Your task to perform on an android device: Clear all items from cart on target. Search for razer kraken on target, select the first entry, add it to the cart, then select checkout. Image 0: 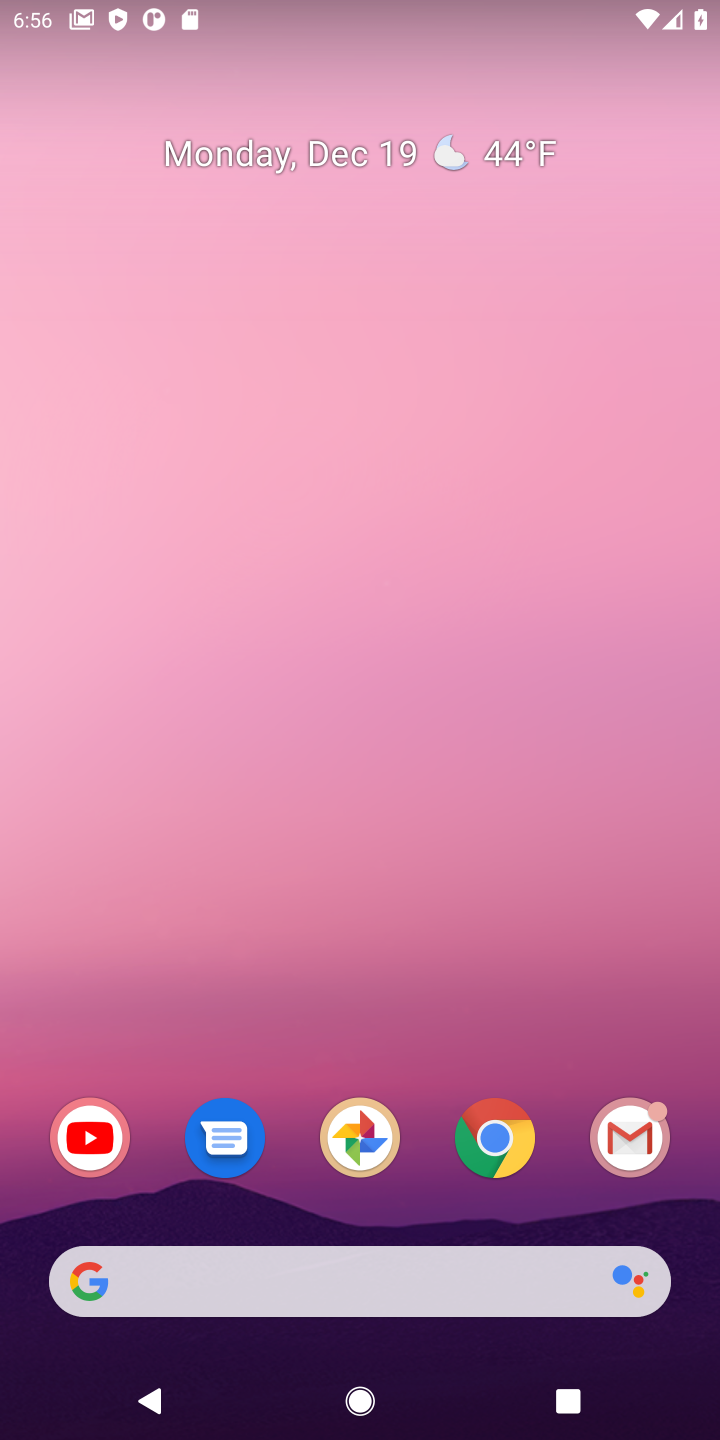
Step 0: click (494, 1140)
Your task to perform on an android device: Clear all items from cart on target. Search for razer kraken on target, select the first entry, add it to the cart, then select checkout. Image 1: 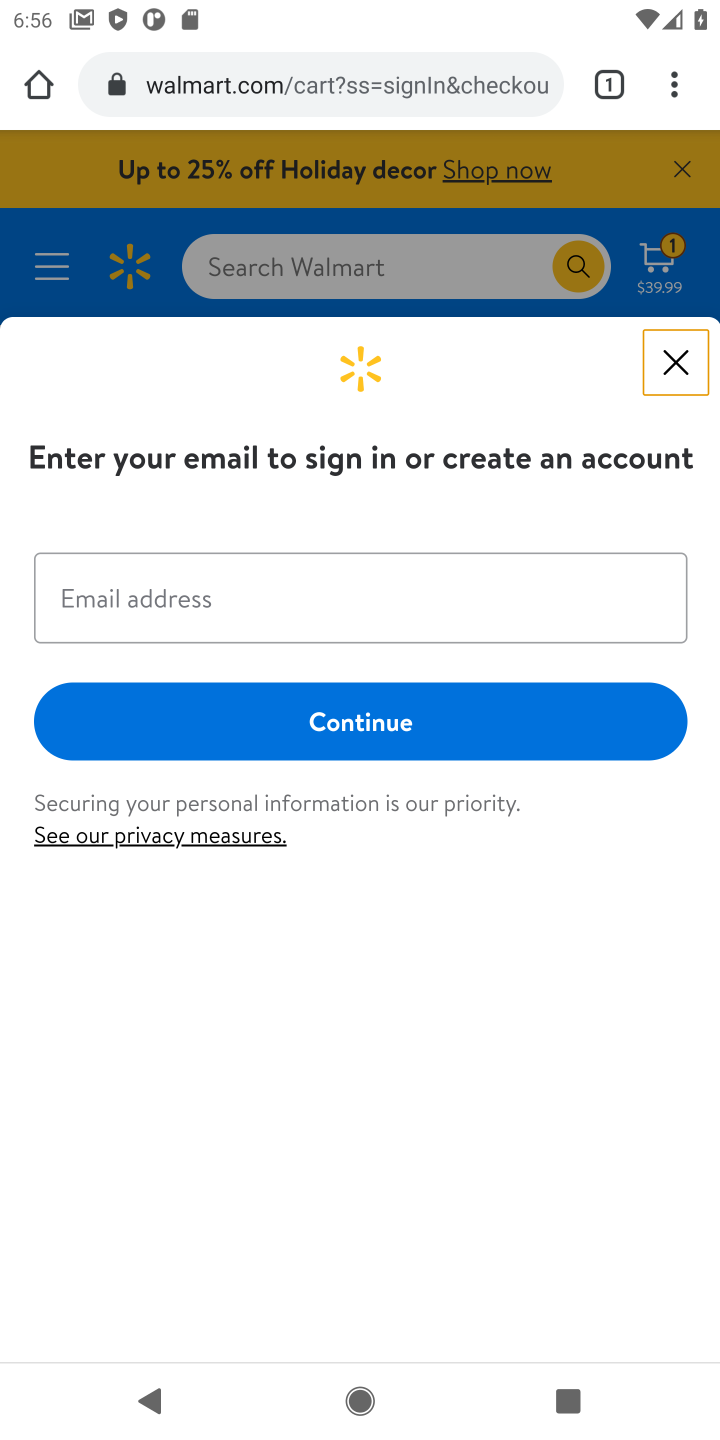
Step 1: click (338, 84)
Your task to perform on an android device: Clear all items from cart on target. Search for razer kraken on target, select the first entry, add it to the cart, then select checkout. Image 2: 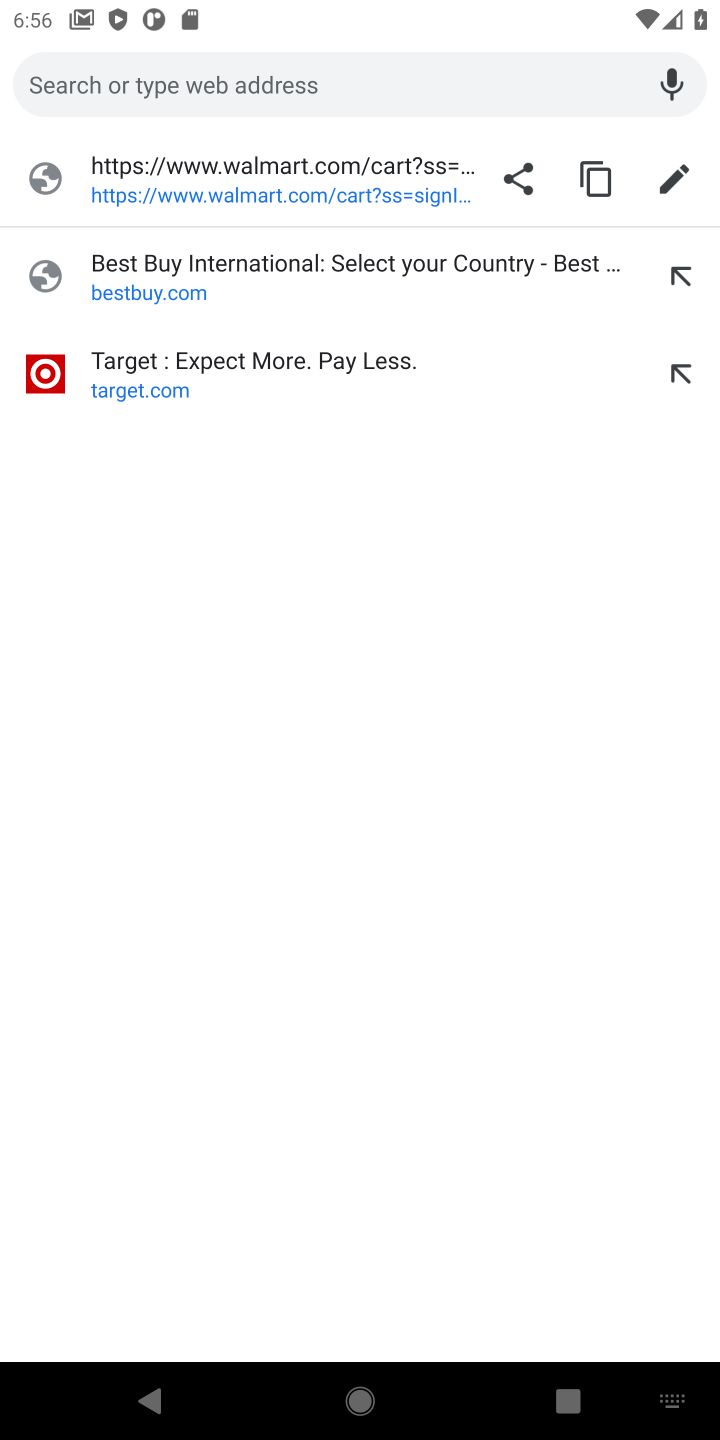
Step 2: click (248, 370)
Your task to perform on an android device: Clear all items from cart on target. Search for razer kraken on target, select the first entry, add it to the cart, then select checkout. Image 3: 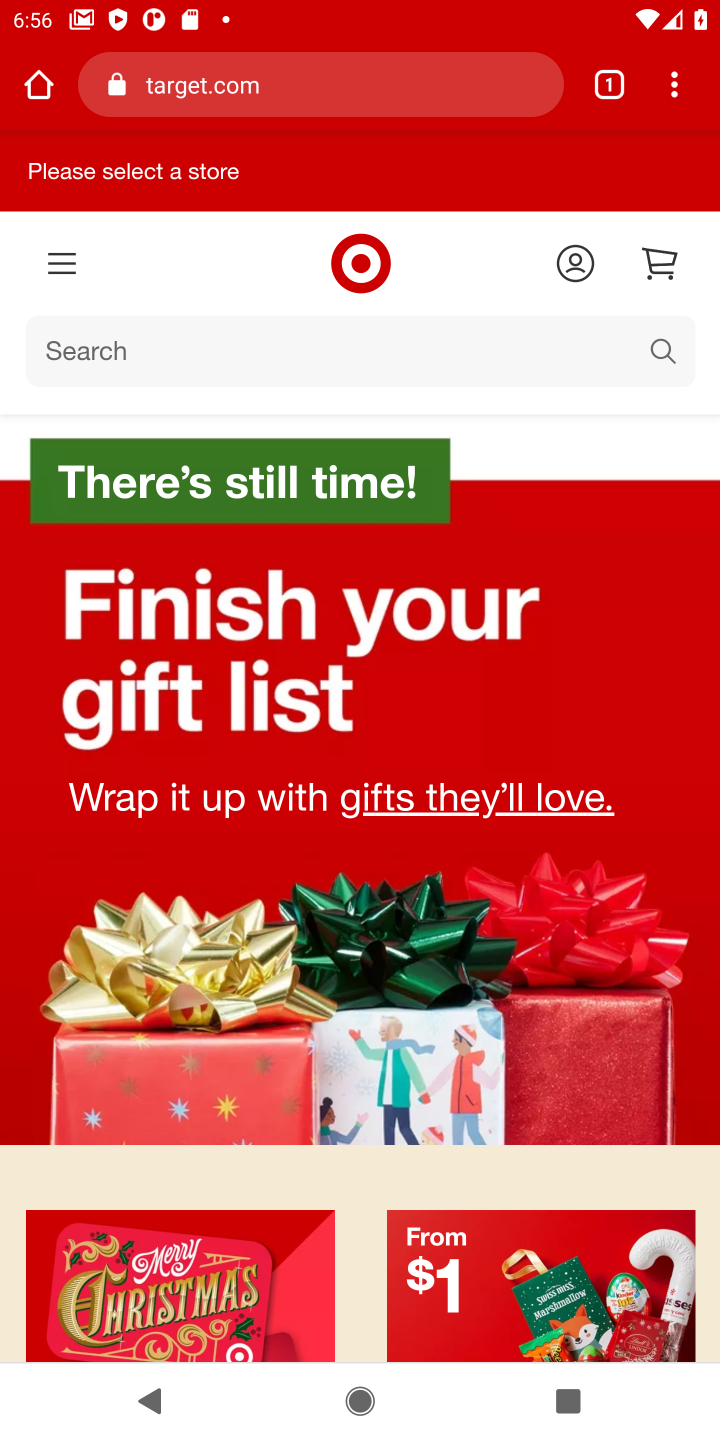
Step 3: click (522, 353)
Your task to perform on an android device: Clear all items from cart on target. Search for razer kraken on target, select the first entry, add it to the cart, then select checkout. Image 4: 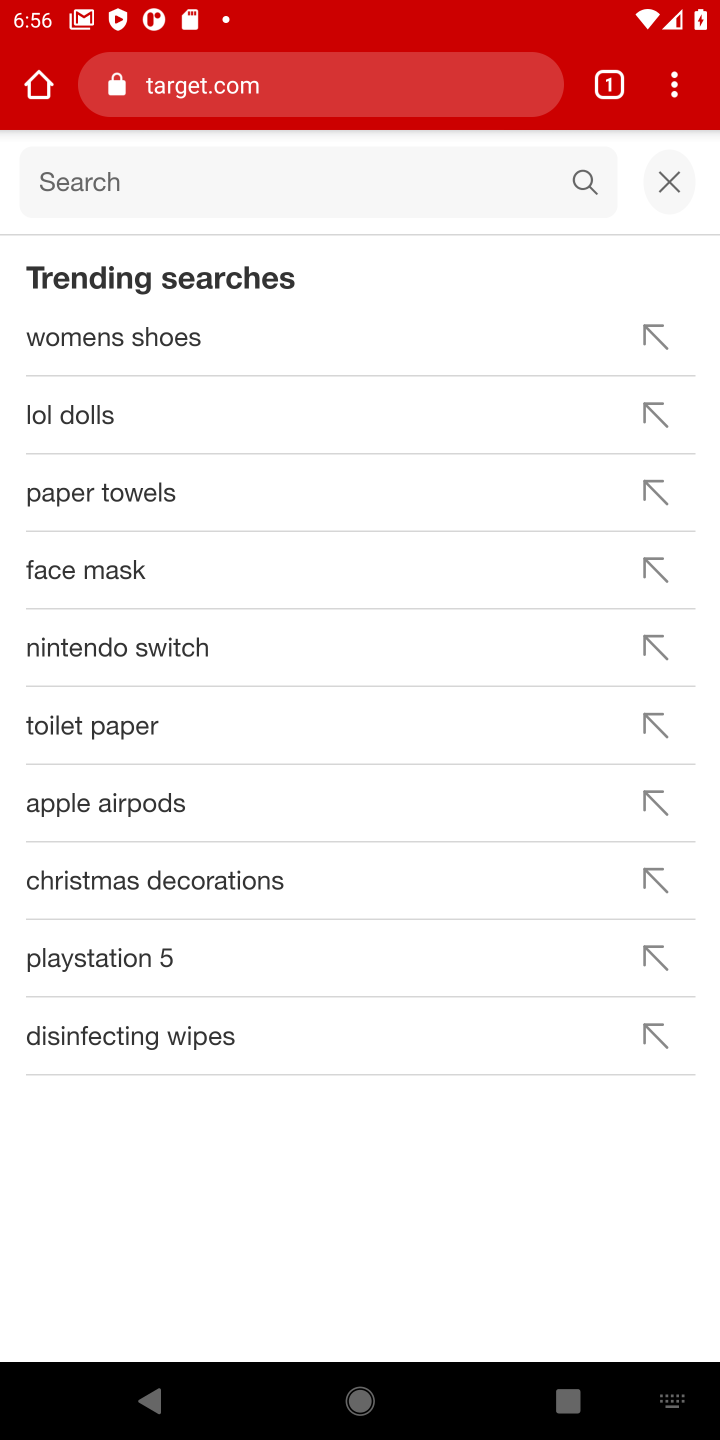
Step 4: click (303, 171)
Your task to perform on an android device: Clear all items from cart on target. Search for razer kraken on target, select the first entry, add it to the cart, then select checkout. Image 5: 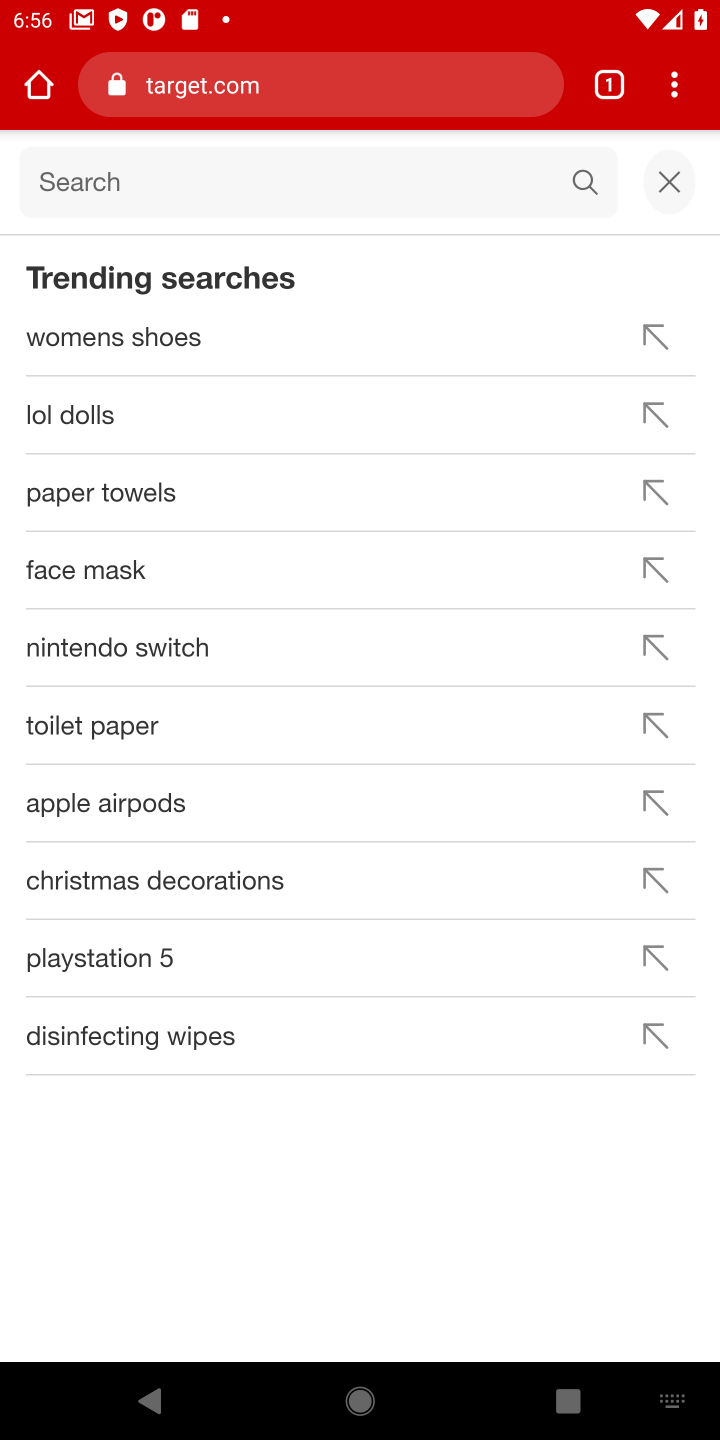
Step 5: type "razer kraken"
Your task to perform on an android device: Clear all items from cart on target. Search for razer kraken on target, select the first entry, add it to the cart, then select checkout. Image 6: 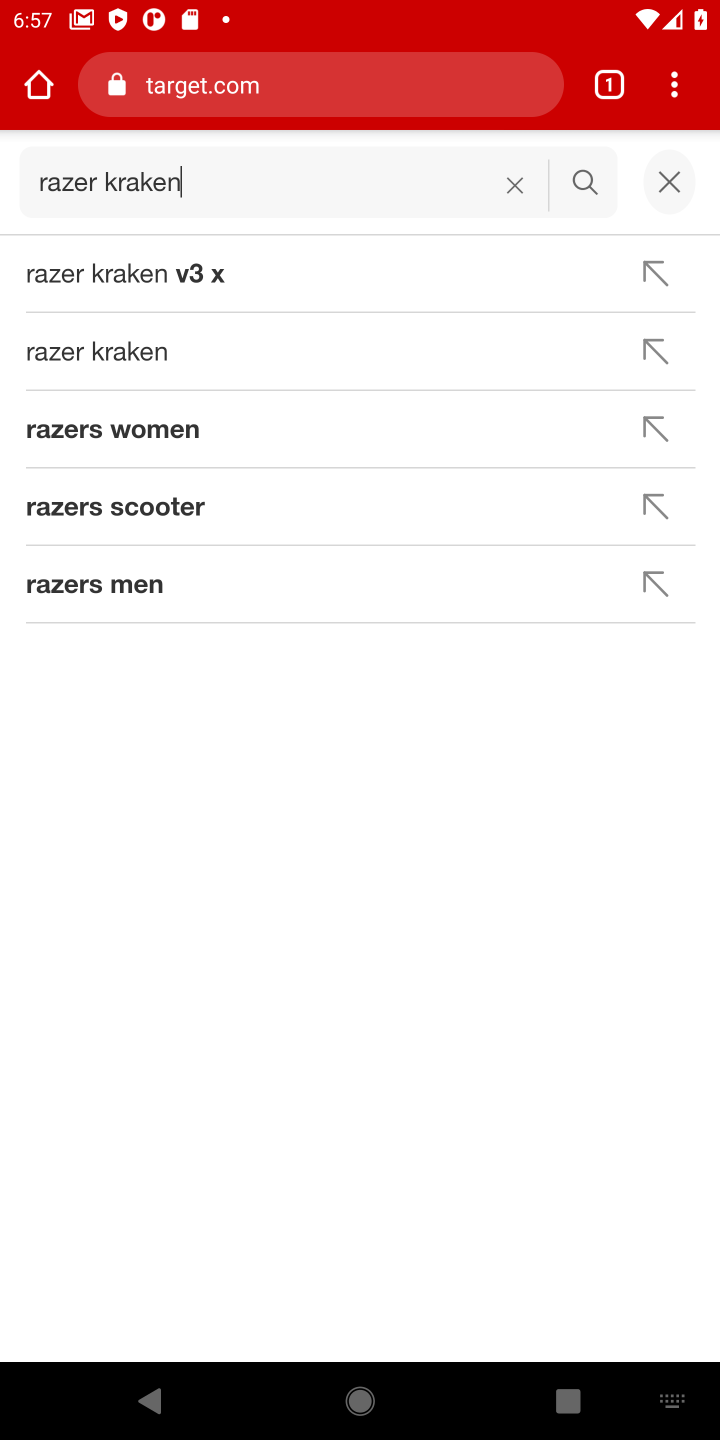
Step 6: click (213, 291)
Your task to perform on an android device: Clear all items from cart on target. Search for razer kraken on target, select the first entry, add it to the cart, then select checkout. Image 7: 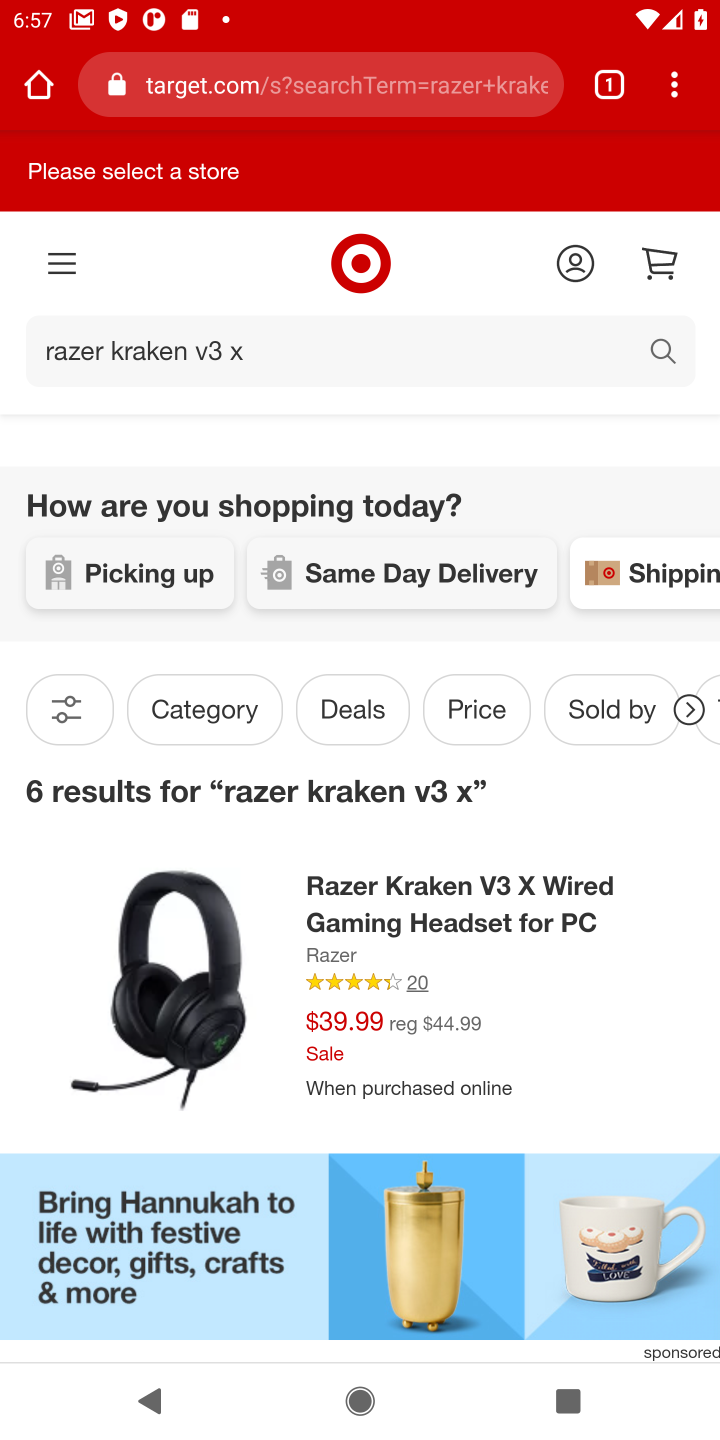
Step 7: click (580, 911)
Your task to perform on an android device: Clear all items from cart on target. Search for razer kraken on target, select the first entry, add it to the cart, then select checkout. Image 8: 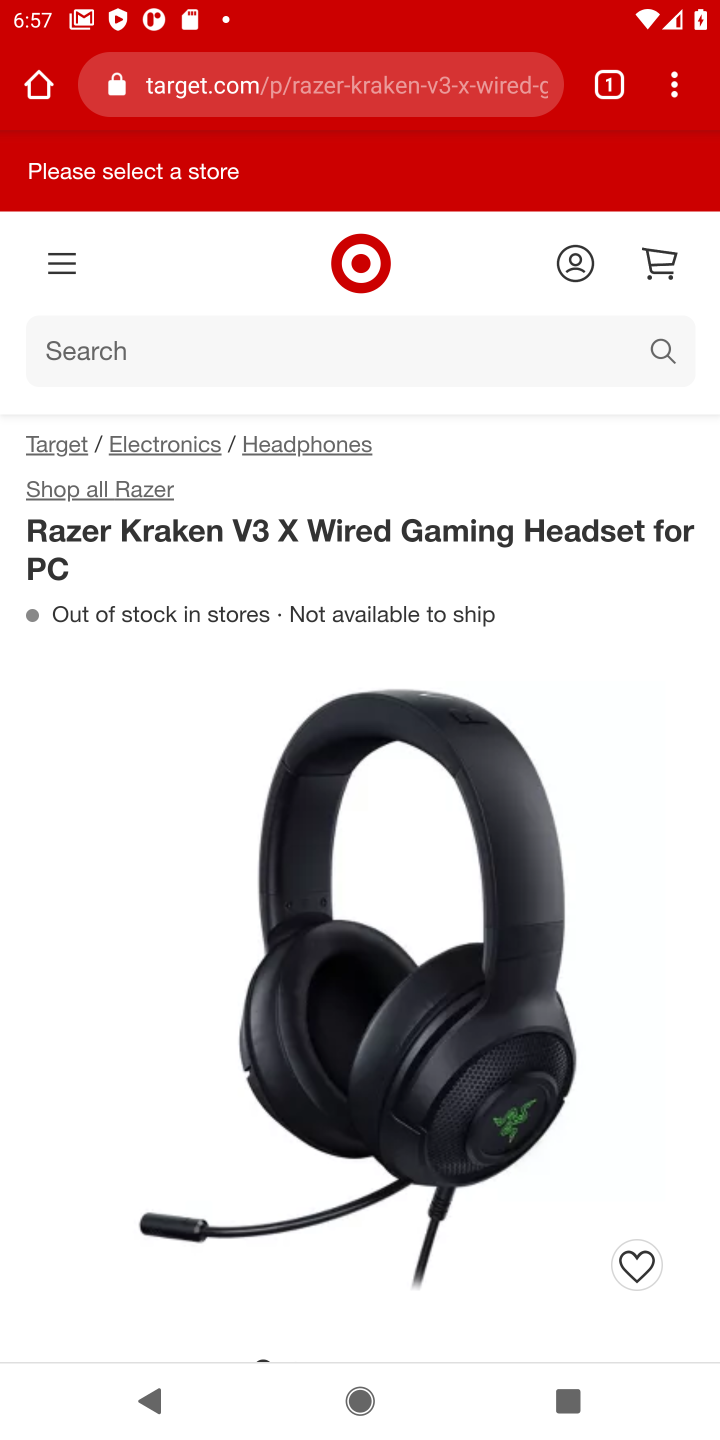
Step 8: drag from (477, 1134) to (441, 595)
Your task to perform on an android device: Clear all items from cart on target. Search for razer kraken on target, select the first entry, add it to the cart, then select checkout. Image 9: 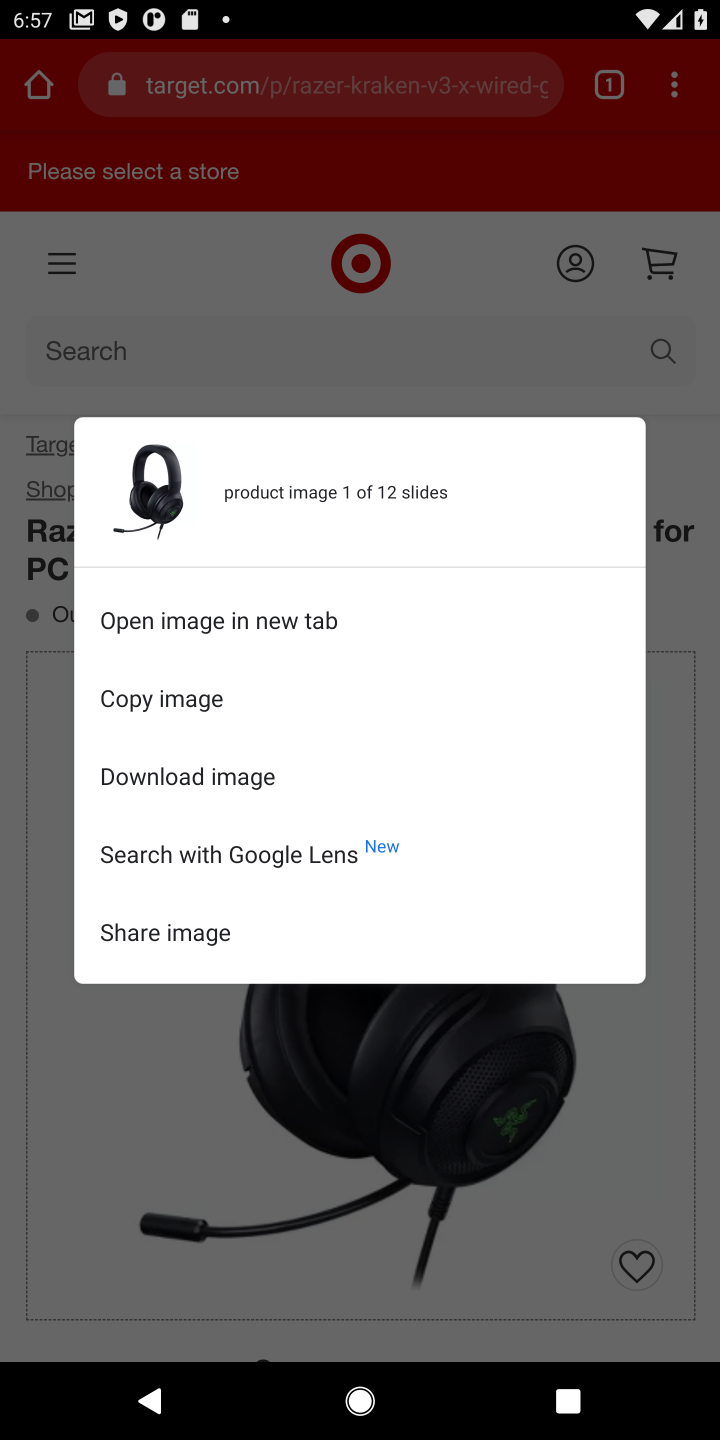
Step 9: click (593, 1097)
Your task to perform on an android device: Clear all items from cart on target. Search for razer kraken on target, select the first entry, add it to the cart, then select checkout. Image 10: 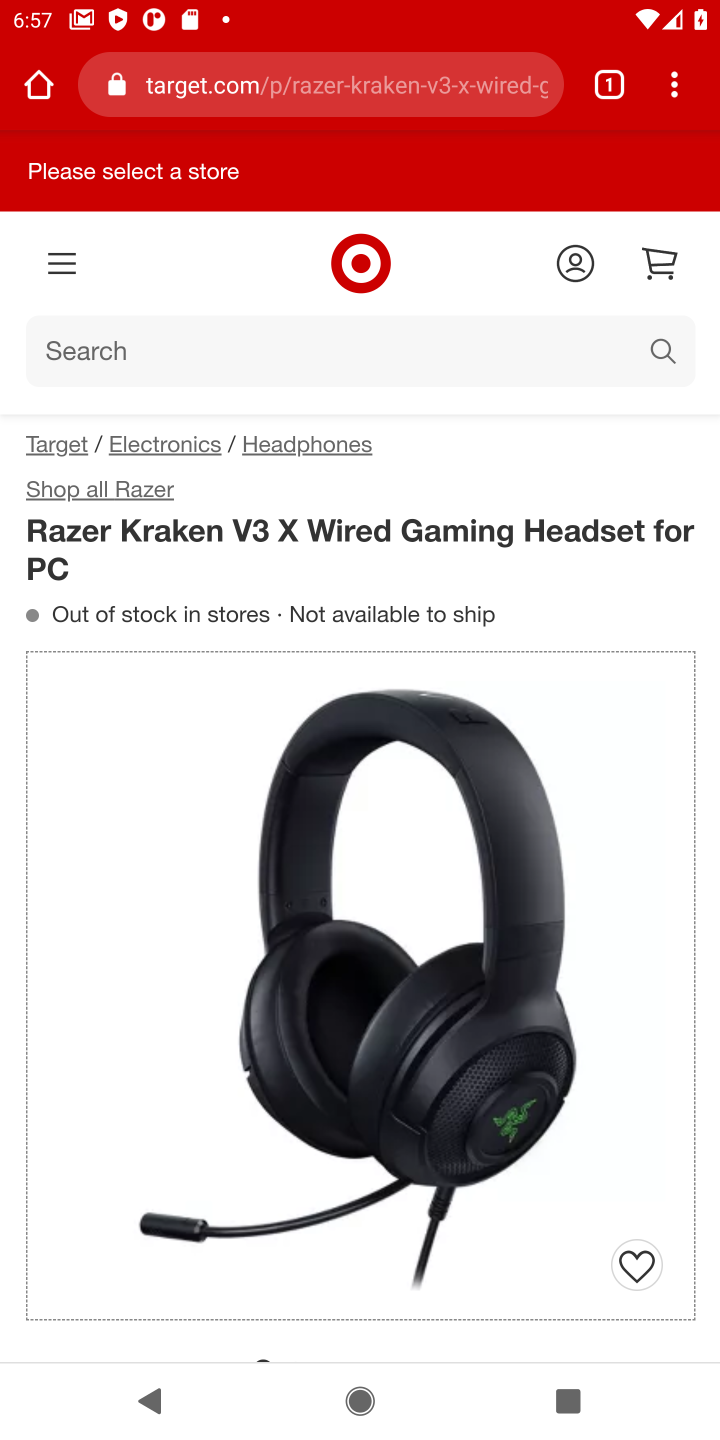
Step 10: drag from (553, 611) to (447, 84)
Your task to perform on an android device: Clear all items from cart on target. Search for razer kraken on target, select the first entry, add it to the cart, then select checkout. Image 11: 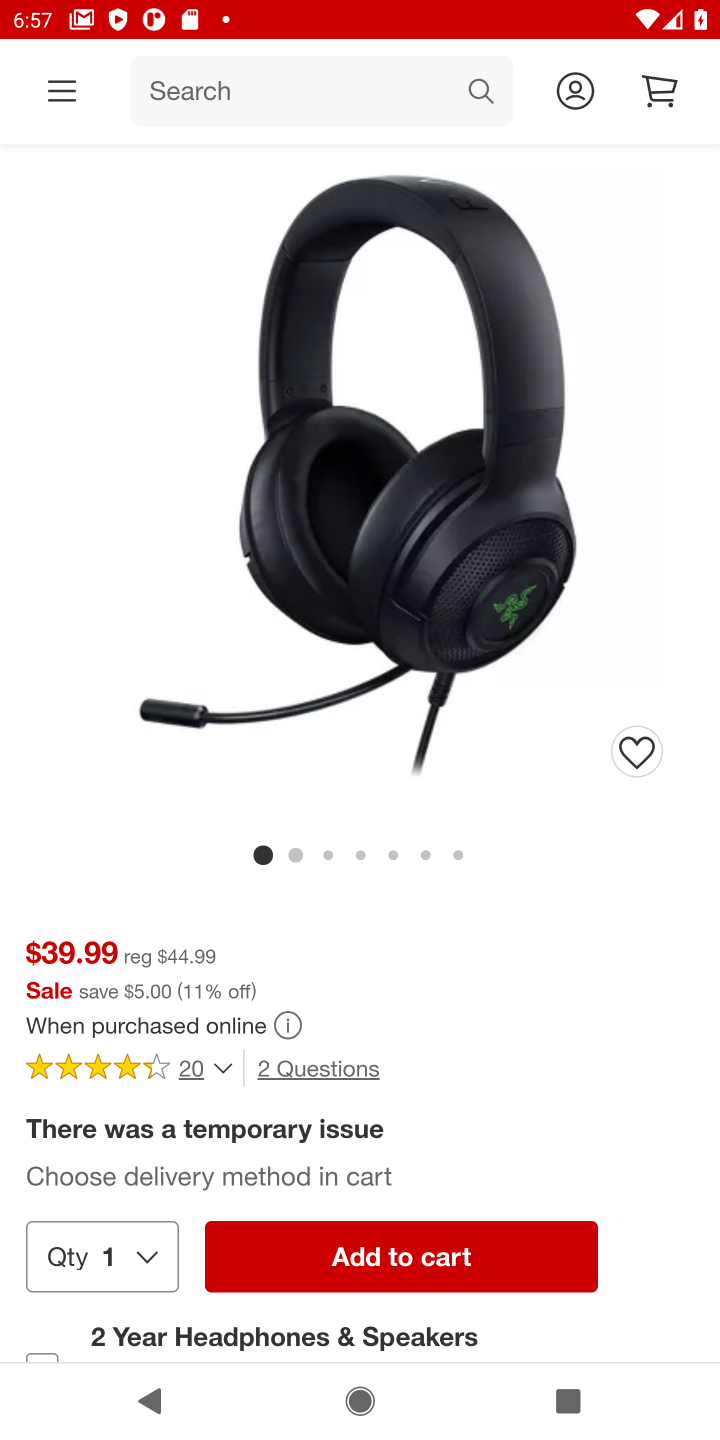
Step 11: click (445, 1267)
Your task to perform on an android device: Clear all items from cart on target. Search for razer kraken on target, select the first entry, add it to the cart, then select checkout. Image 12: 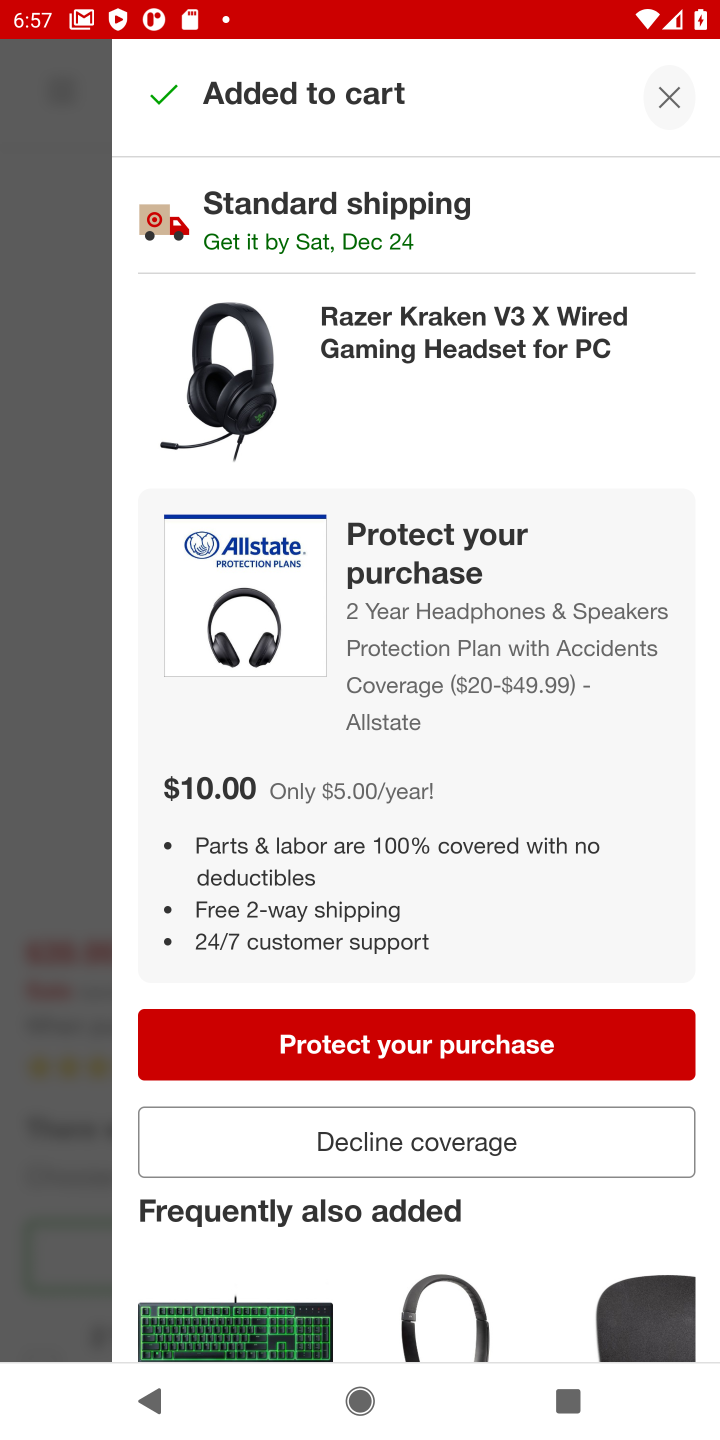
Step 12: click (441, 1142)
Your task to perform on an android device: Clear all items from cart on target. Search for razer kraken on target, select the first entry, add it to the cart, then select checkout. Image 13: 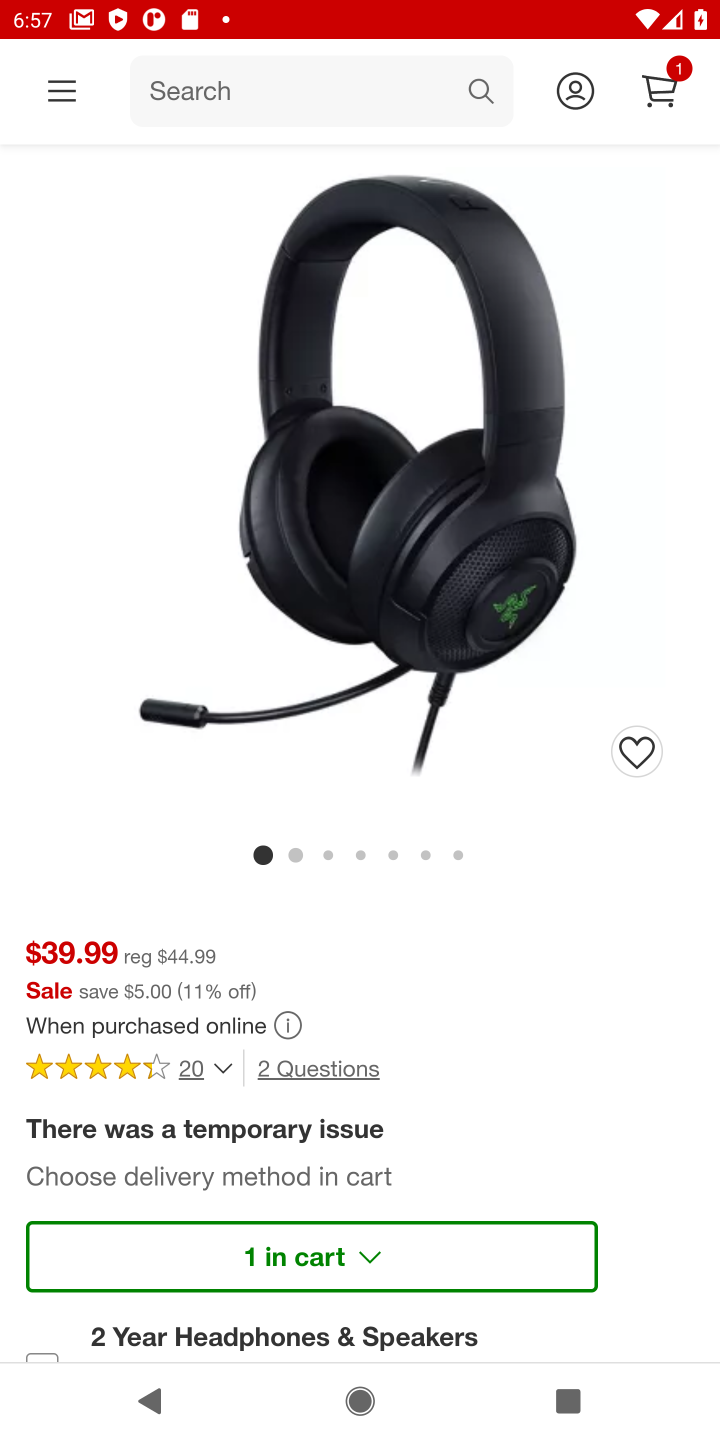
Step 13: click (654, 99)
Your task to perform on an android device: Clear all items from cart on target. Search for razer kraken on target, select the first entry, add it to the cart, then select checkout. Image 14: 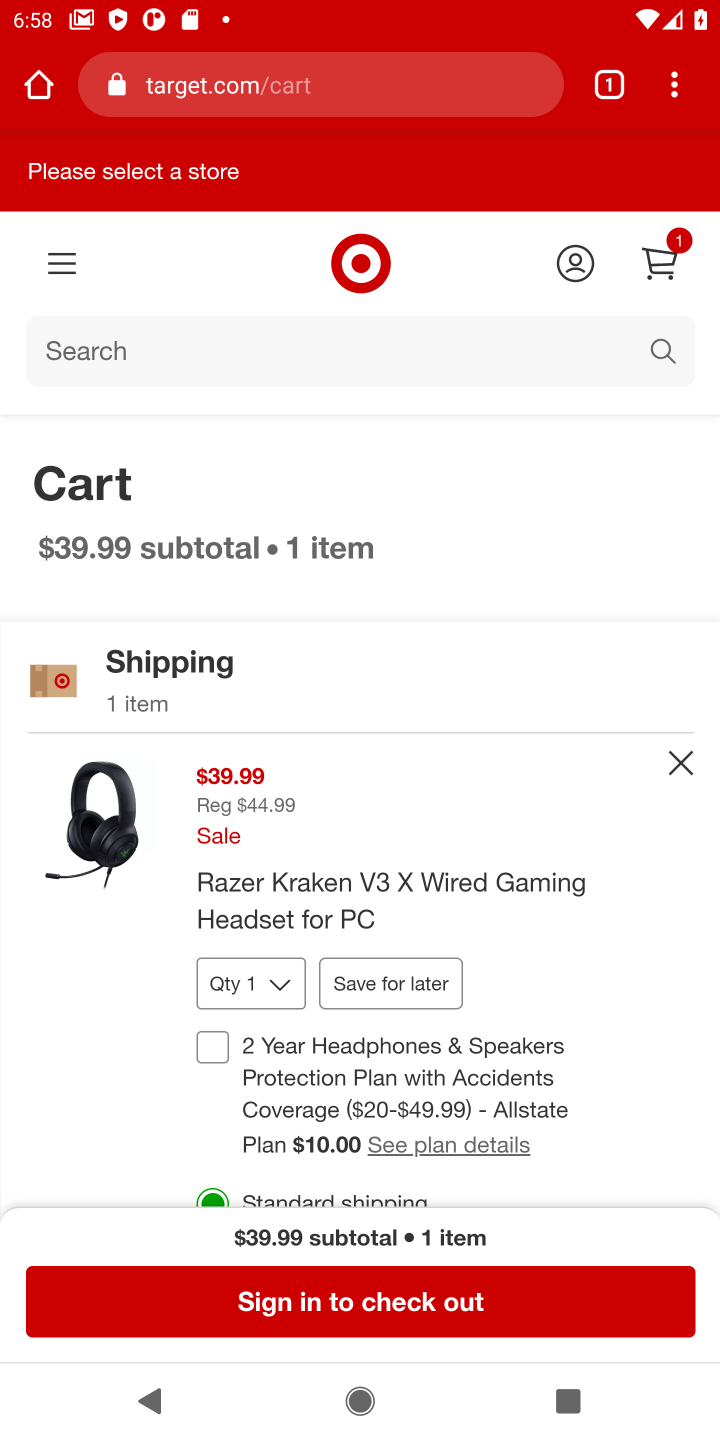
Step 14: click (451, 1298)
Your task to perform on an android device: Clear all items from cart on target. Search for razer kraken on target, select the first entry, add it to the cart, then select checkout. Image 15: 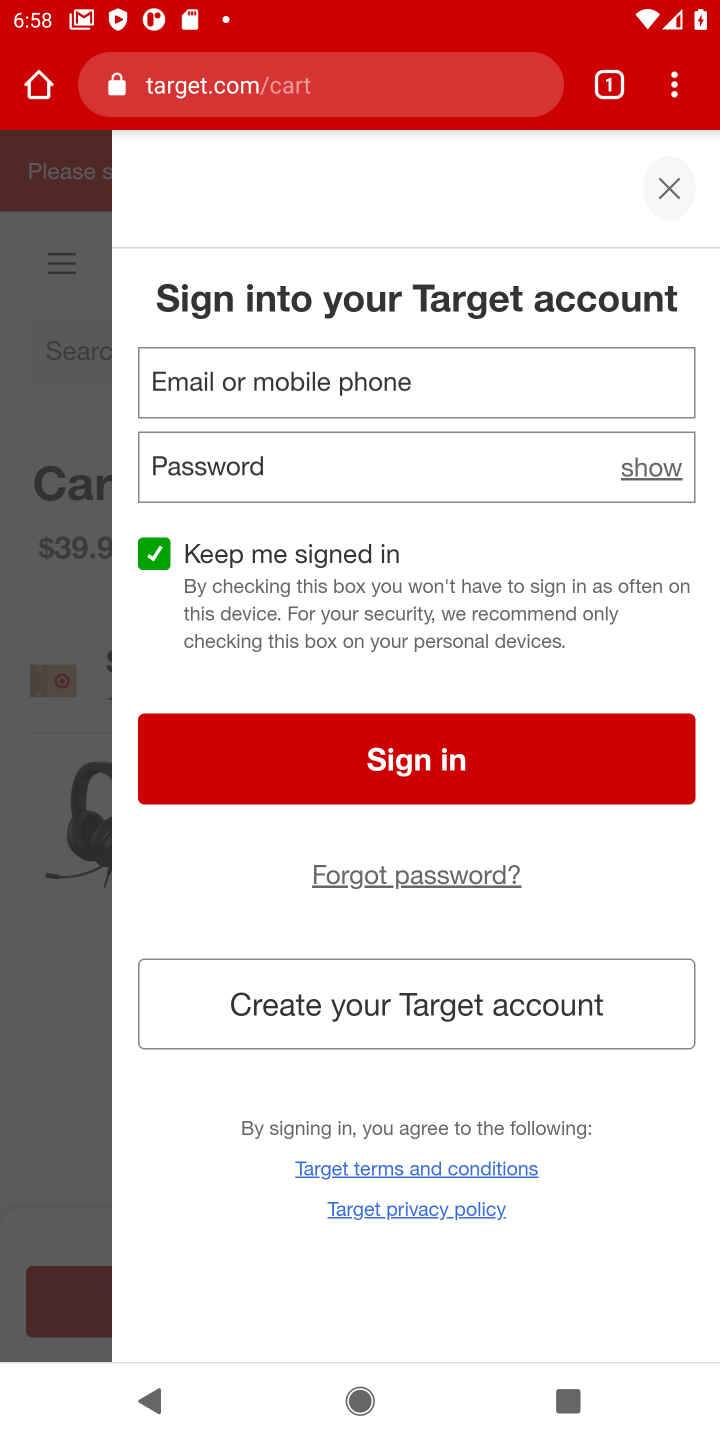
Step 15: task complete